Your task to perform on an android device: add a contact in the contacts app Image 0: 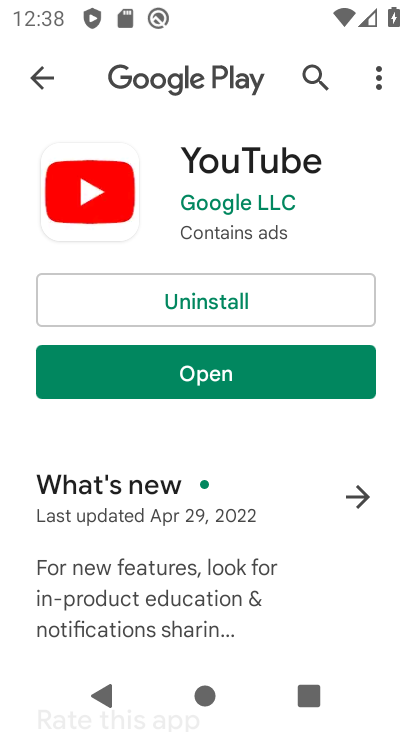
Step 0: press home button
Your task to perform on an android device: add a contact in the contacts app Image 1: 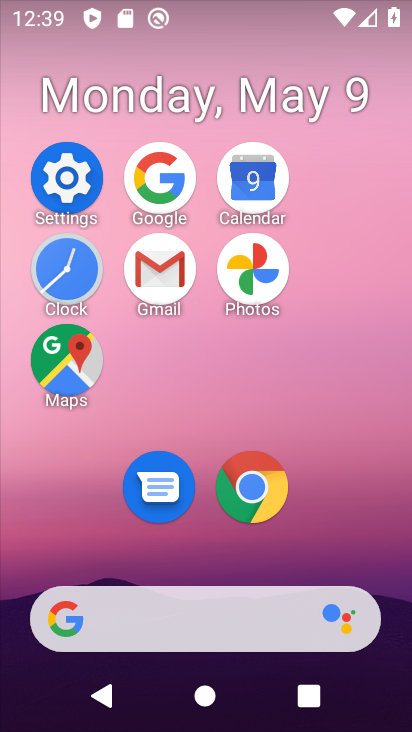
Step 1: drag from (280, 557) to (327, 80)
Your task to perform on an android device: add a contact in the contacts app Image 2: 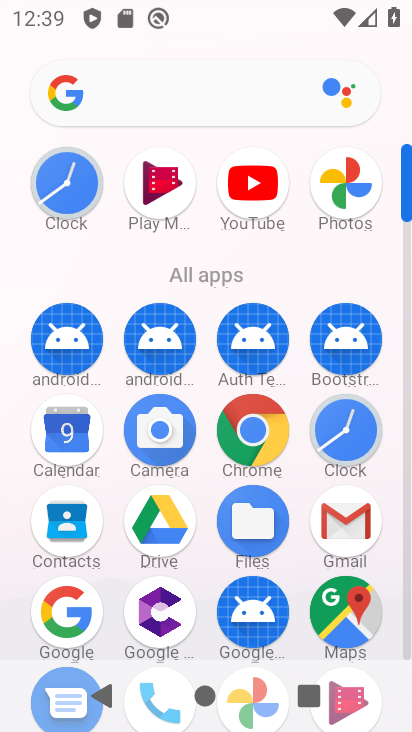
Step 2: drag from (203, 559) to (216, 298)
Your task to perform on an android device: add a contact in the contacts app Image 3: 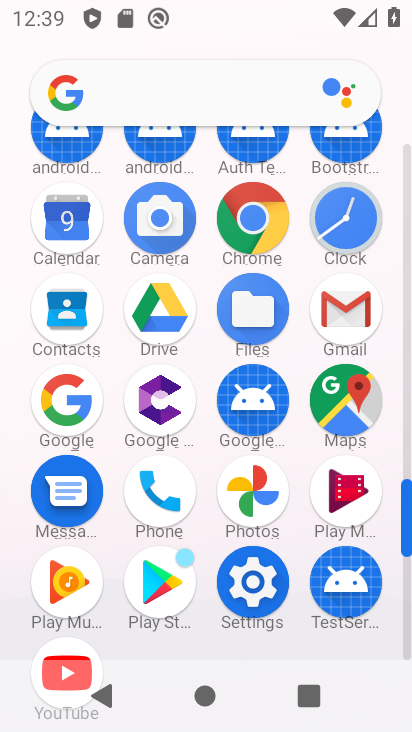
Step 3: click (72, 302)
Your task to perform on an android device: add a contact in the contacts app Image 4: 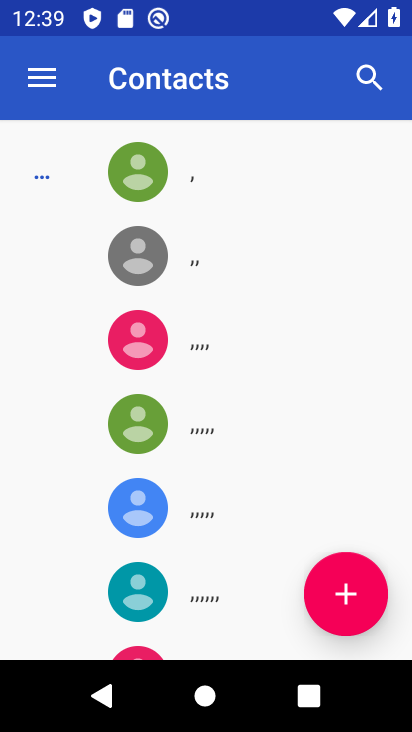
Step 4: click (361, 603)
Your task to perform on an android device: add a contact in the contacts app Image 5: 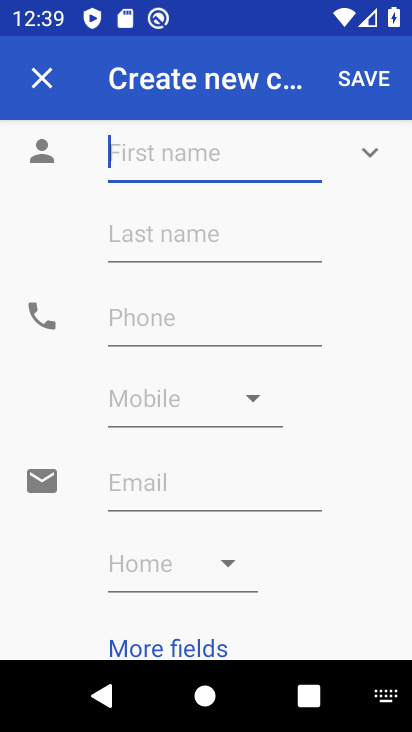
Step 5: type "qwdd"
Your task to perform on an android device: add a contact in the contacts app Image 6: 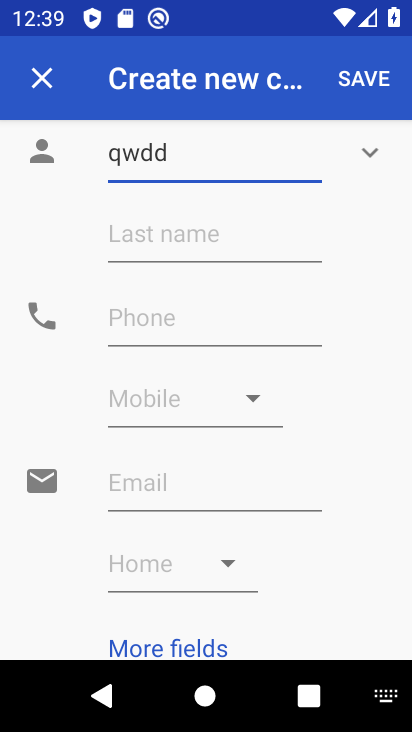
Step 6: click (181, 324)
Your task to perform on an android device: add a contact in the contacts app Image 7: 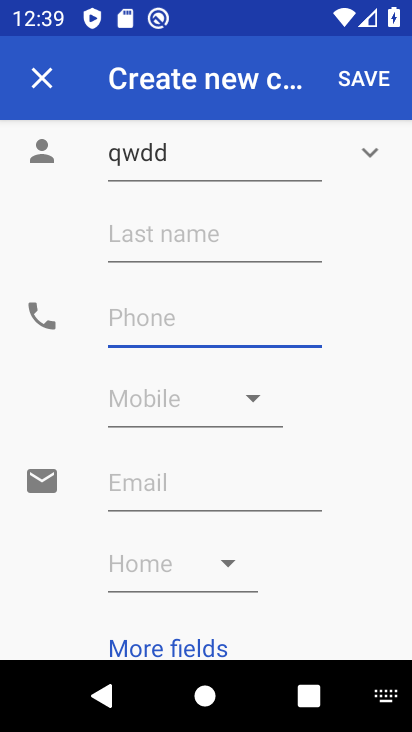
Step 7: type "9987654321"
Your task to perform on an android device: add a contact in the contacts app Image 8: 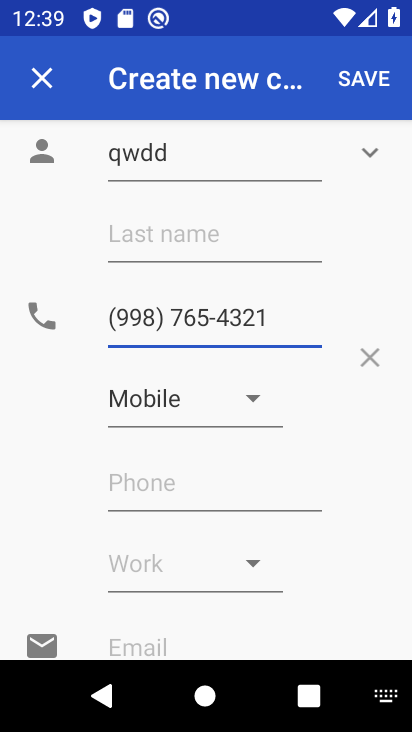
Step 8: click (363, 76)
Your task to perform on an android device: add a contact in the contacts app Image 9: 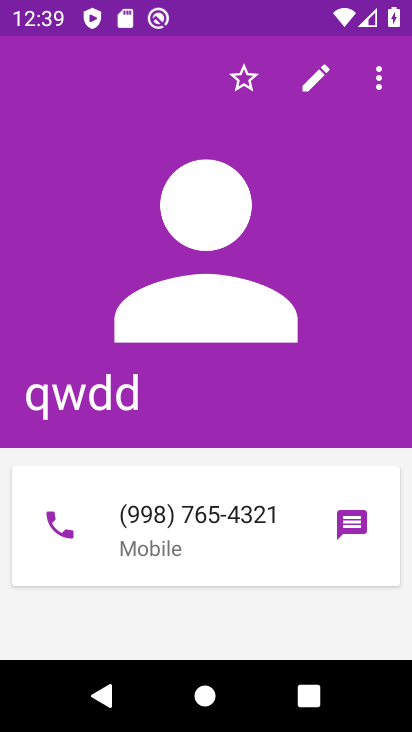
Step 9: task complete